Your task to perform on an android device: turn on javascript in the chrome app Image 0: 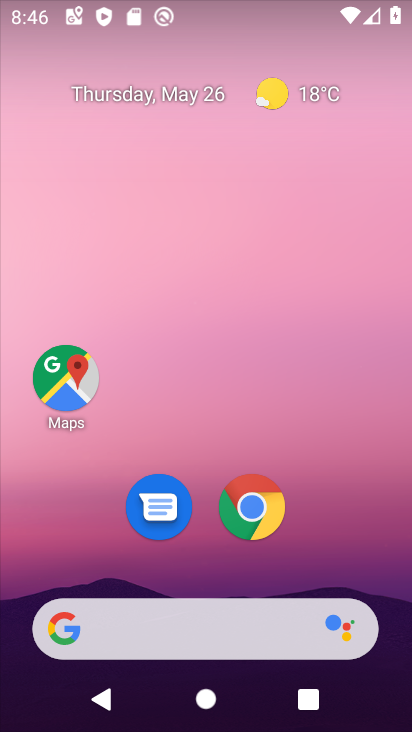
Step 0: press home button
Your task to perform on an android device: turn on javascript in the chrome app Image 1: 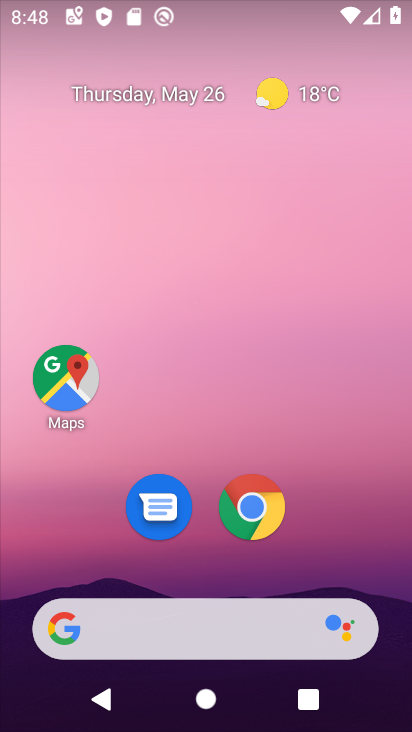
Step 1: drag from (235, 671) to (335, 54)
Your task to perform on an android device: turn on javascript in the chrome app Image 2: 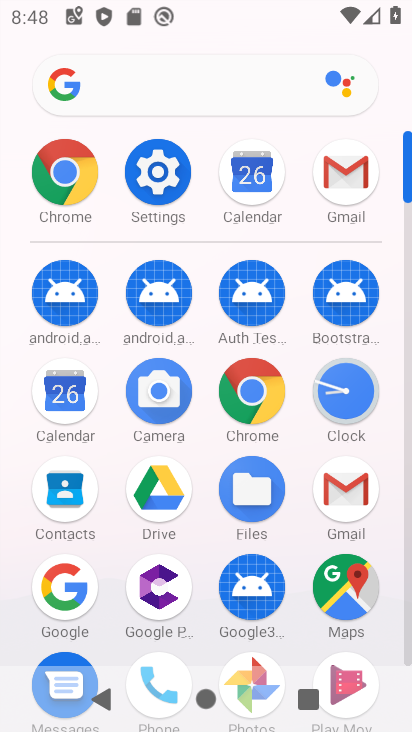
Step 2: click (244, 397)
Your task to perform on an android device: turn on javascript in the chrome app Image 3: 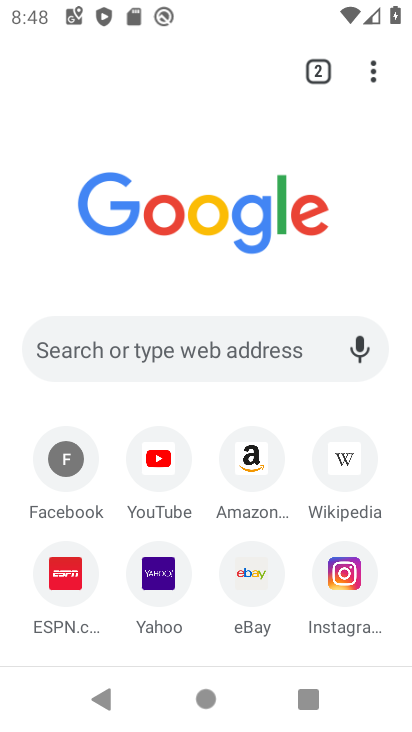
Step 3: click (359, 92)
Your task to perform on an android device: turn on javascript in the chrome app Image 4: 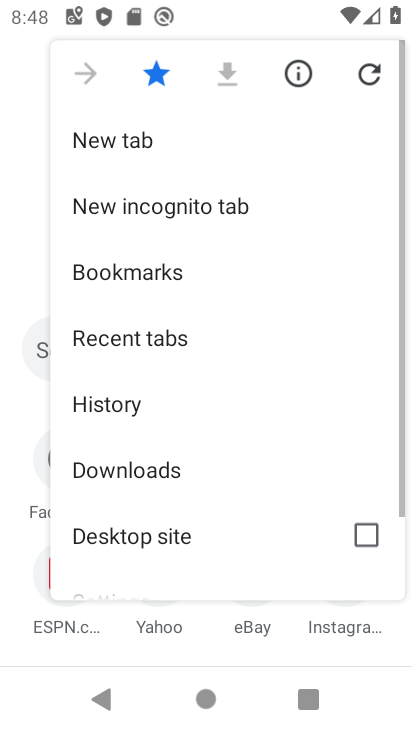
Step 4: drag from (151, 470) to (182, 218)
Your task to perform on an android device: turn on javascript in the chrome app Image 5: 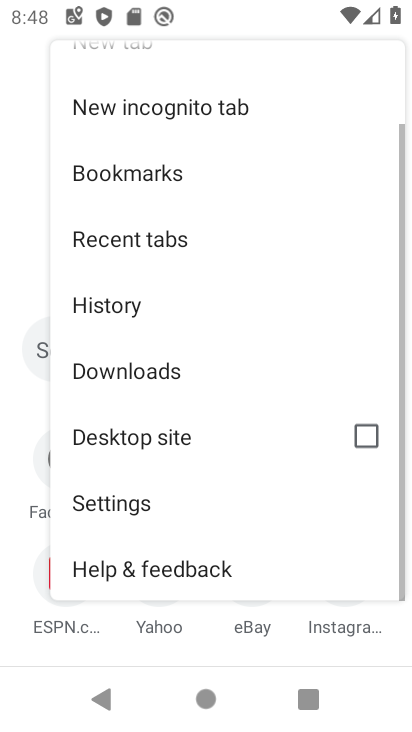
Step 5: click (140, 503)
Your task to perform on an android device: turn on javascript in the chrome app Image 6: 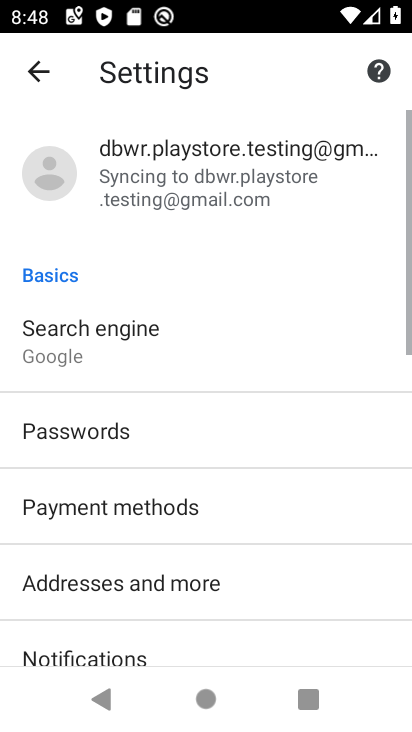
Step 6: drag from (182, 628) to (244, 332)
Your task to perform on an android device: turn on javascript in the chrome app Image 7: 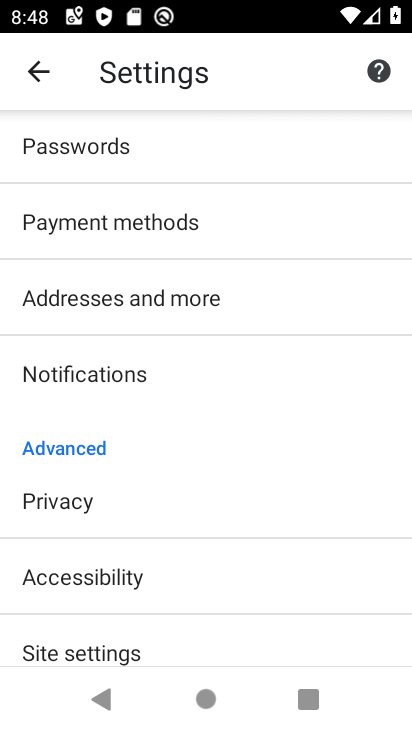
Step 7: drag from (111, 603) to (121, 424)
Your task to perform on an android device: turn on javascript in the chrome app Image 8: 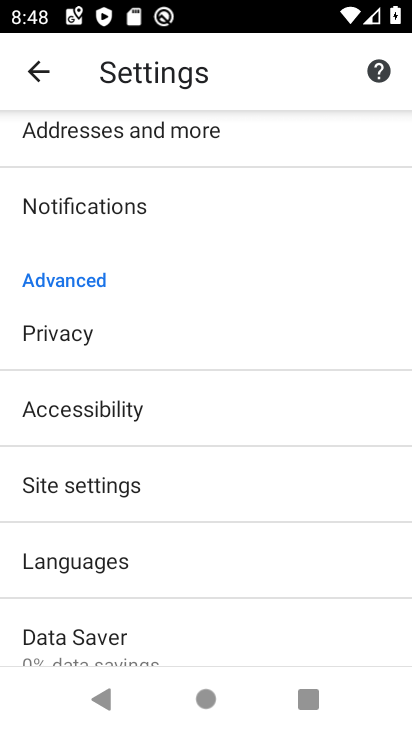
Step 8: click (116, 482)
Your task to perform on an android device: turn on javascript in the chrome app Image 9: 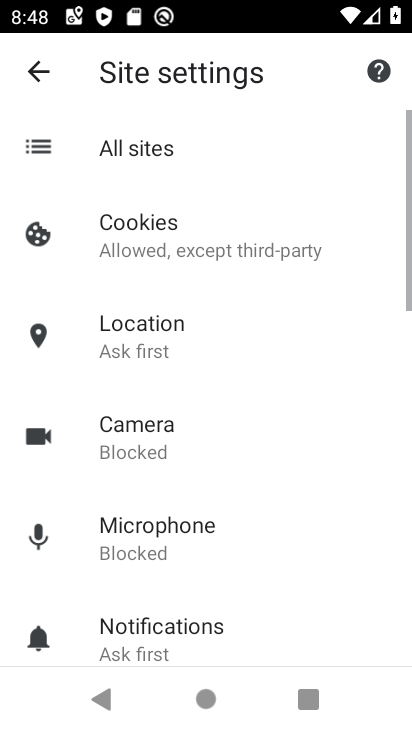
Step 9: drag from (204, 569) to (281, 322)
Your task to perform on an android device: turn on javascript in the chrome app Image 10: 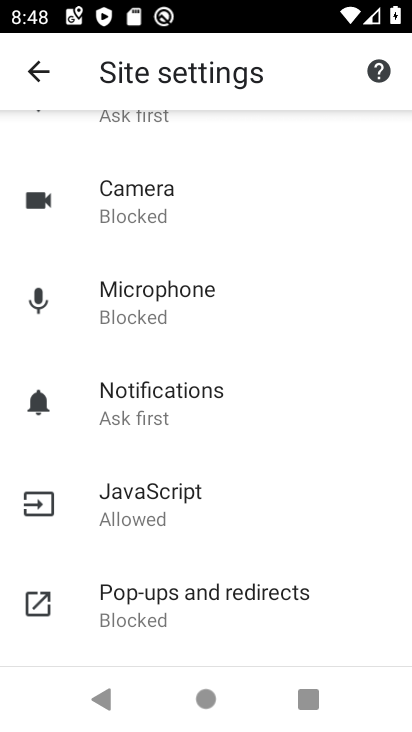
Step 10: click (193, 484)
Your task to perform on an android device: turn on javascript in the chrome app Image 11: 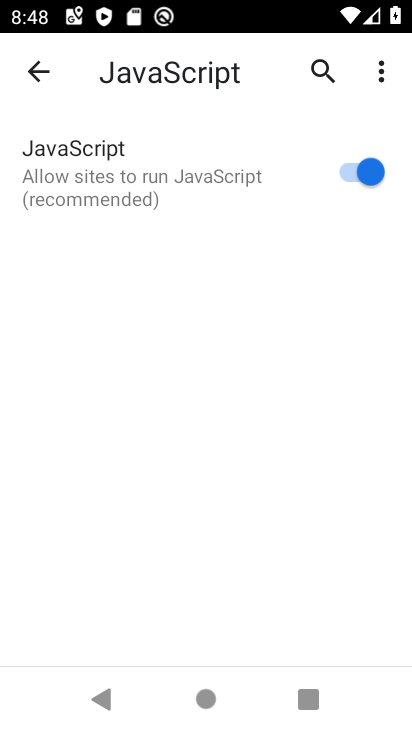
Step 11: click (366, 171)
Your task to perform on an android device: turn on javascript in the chrome app Image 12: 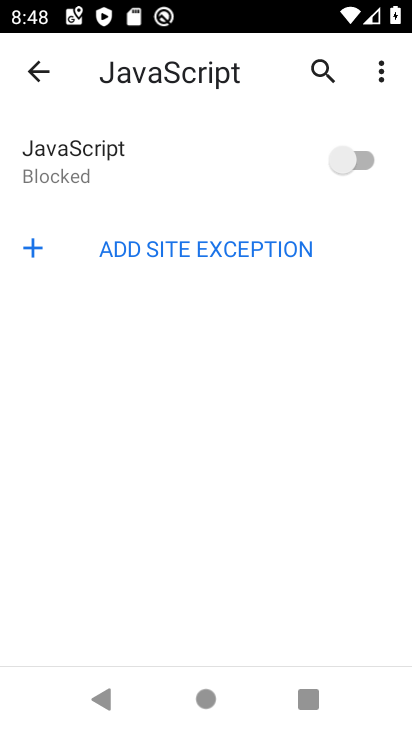
Step 12: click (364, 171)
Your task to perform on an android device: turn on javascript in the chrome app Image 13: 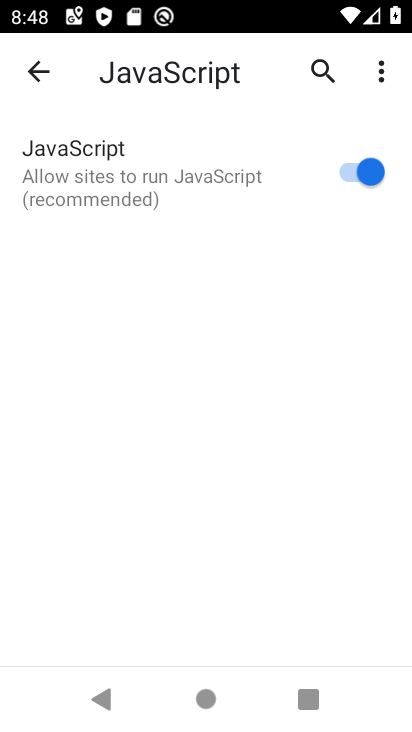
Step 13: task complete